Your task to perform on an android device: change text size in settings app Image 0: 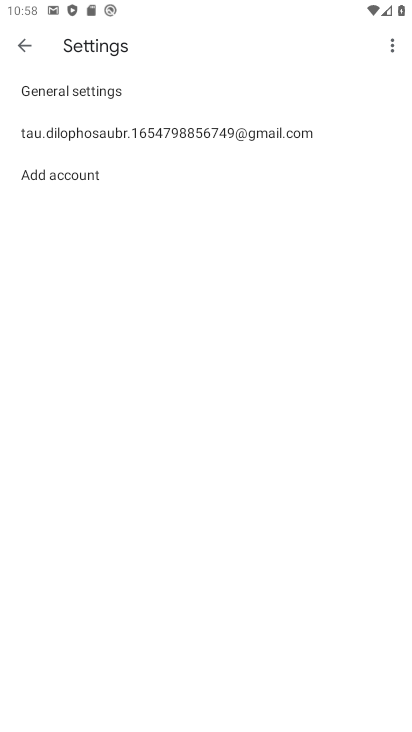
Step 0: press home button
Your task to perform on an android device: change text size in settings app Image 1: 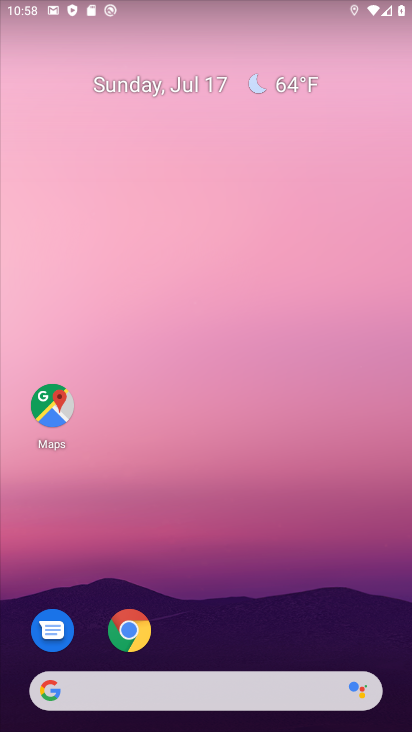
Step 1: drag from (215, 666) to (230, 170)
Your task to perform on an android device: change text size in settings app Image 2: 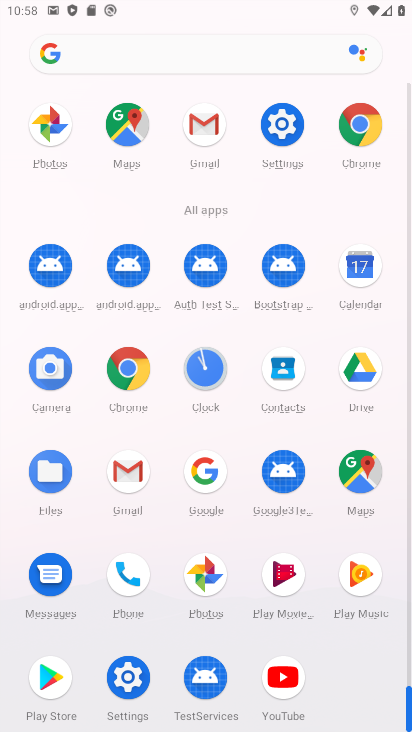
Step 2: click (116, 668)
Your task to perform on an android device: change text size in settings app Image 3: 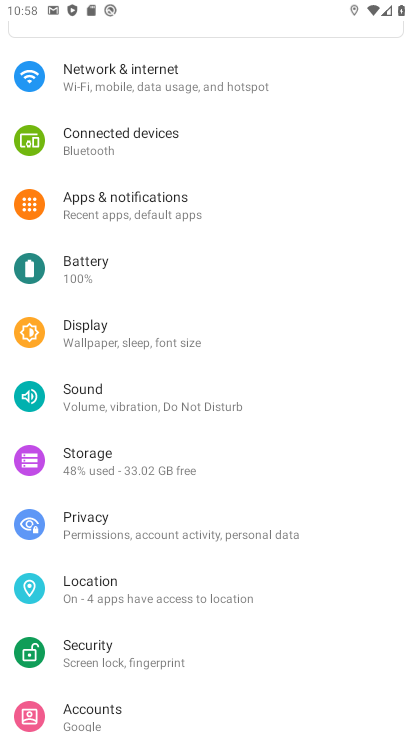
Step 3: click (124, 332)
Your task to perform on an android device: change text size in settings app Image 4: 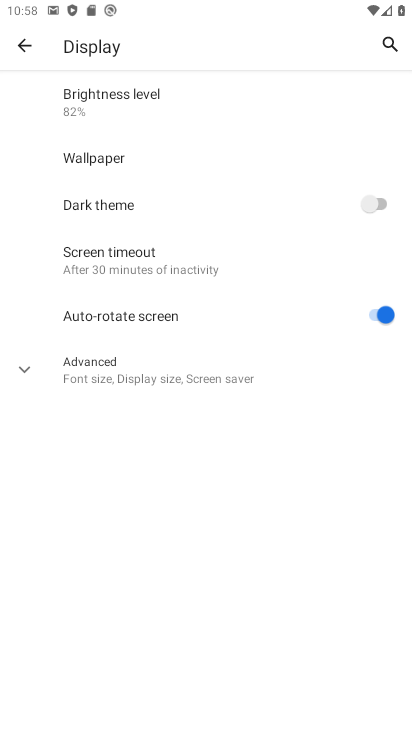
Step 4: click (159, 372)
Your task to perform on an android device: change text size in settings app Image 5: 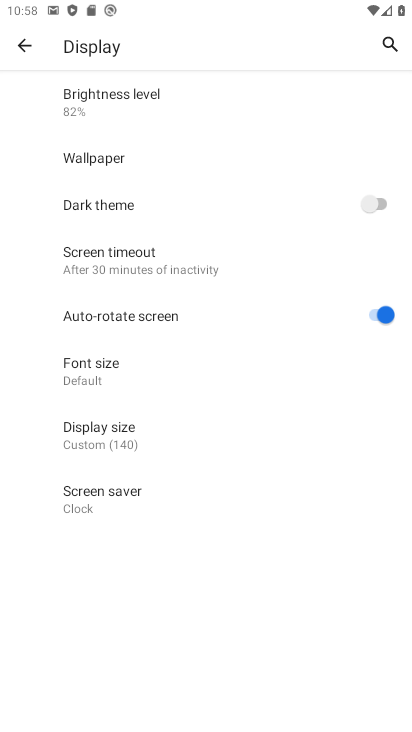
Step 5: click (127, 370)
Your task to perform on an android device: change text size in settings app Image 6: 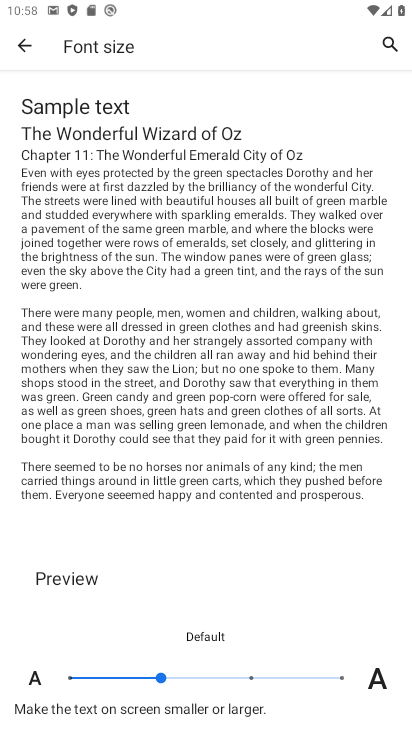
Step 6: click (248, 672)
Your task to perform on an android device: change text size in settings app Image 7: 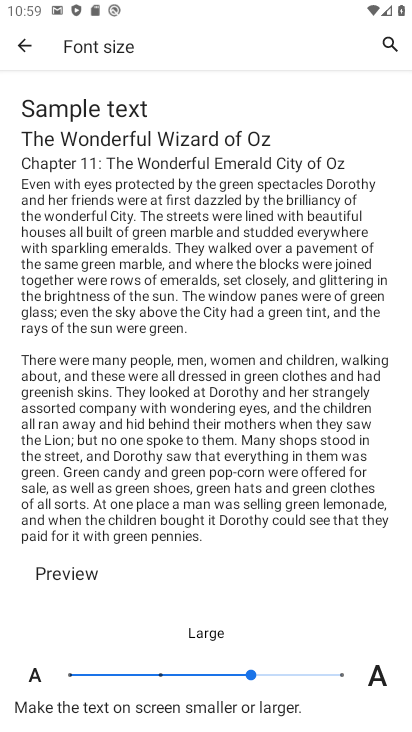
Step 7: click (341, 669)
Your task to perform on an android device: change text size in settings app Image 8: 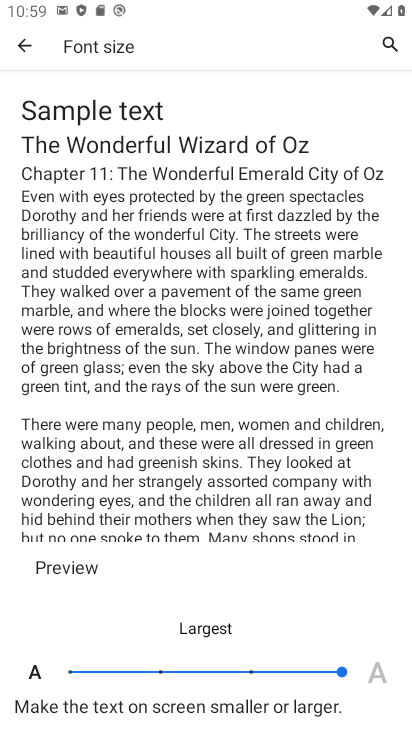
Step 8: task complete